Your task to perform on an android device: turn off location Image 0: 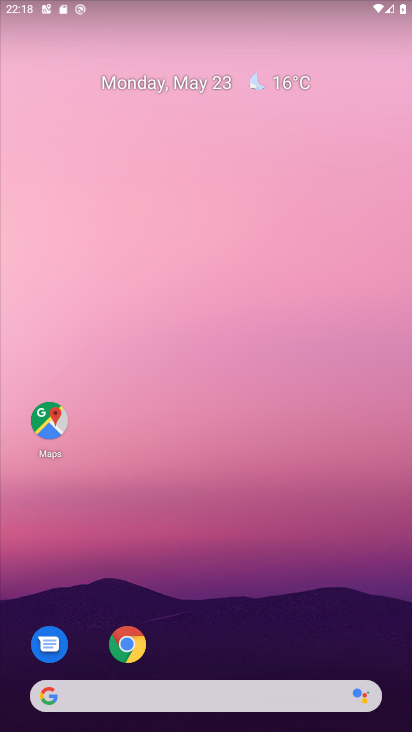
Step 0: drag from (217, 493) to (245, 125)
Your task to perform on an android device: turn off location Image 1: 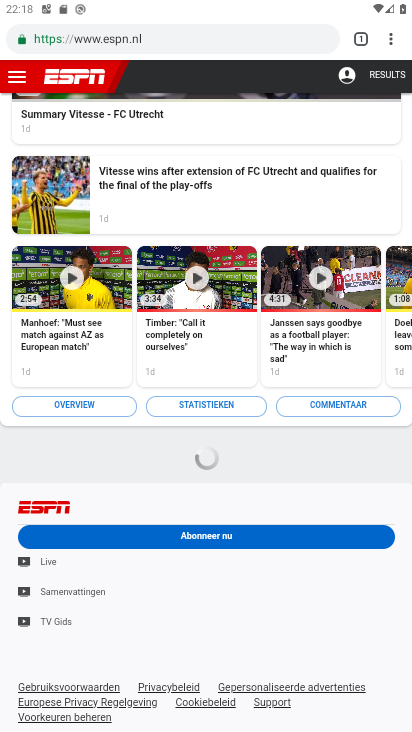
Step 1: press home button
Your task to perform on an android device: turn off location Image 2: 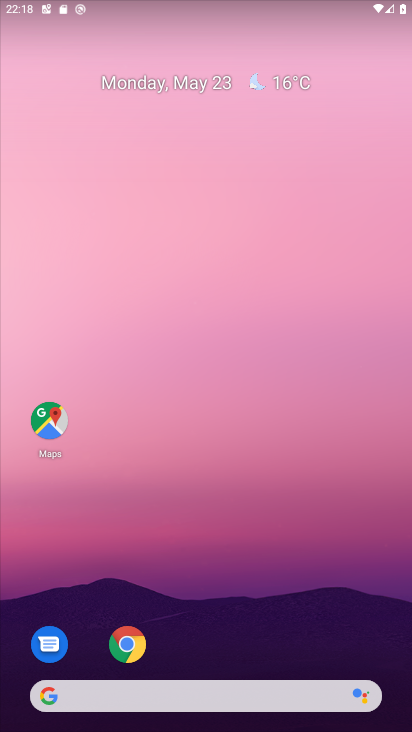
Step 2: drag from (210, 659) to (240, 40)
Your task to perform on an android device: turn off location Image 3: 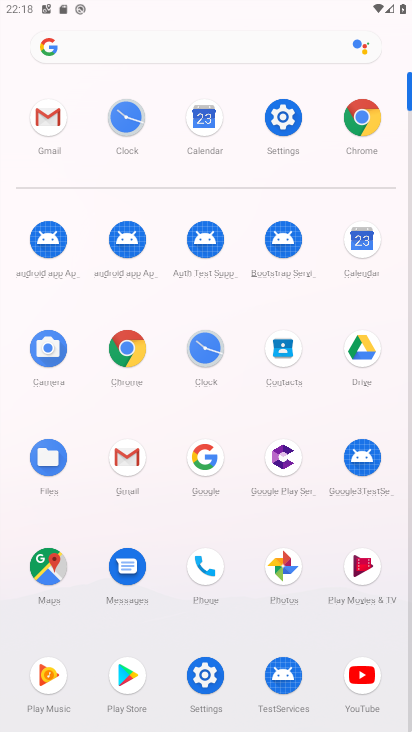
Step 3: click (281, 111)
Your task to perform on an android device: turn off location Image 4: 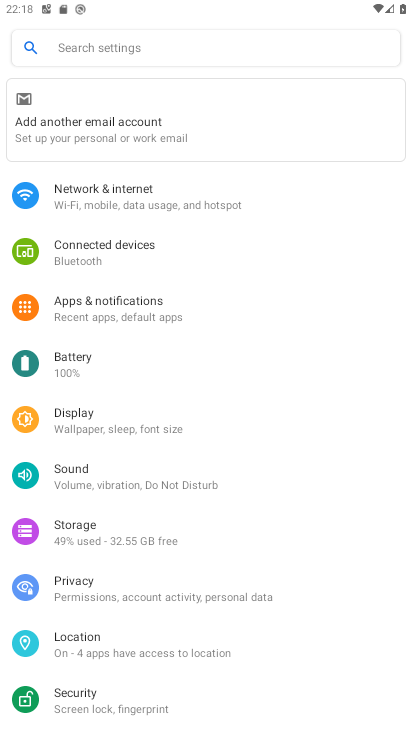
Step 4: click (106, 640)
Your task to perform on an android device: turn off location Image 5: 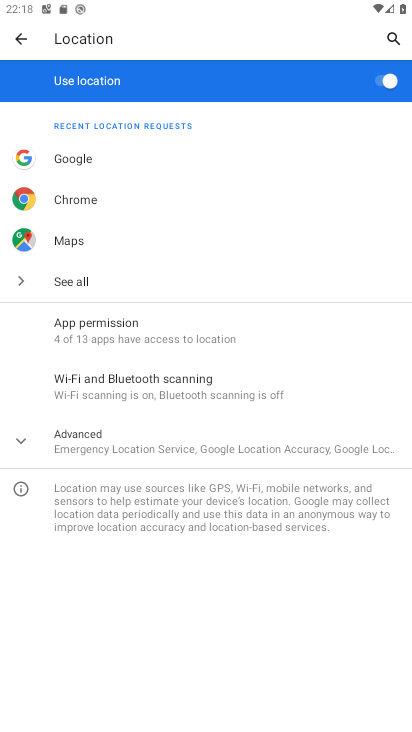
Step 5: click (383, 77)
Your task to perform on an android device: turn off location Image 6: 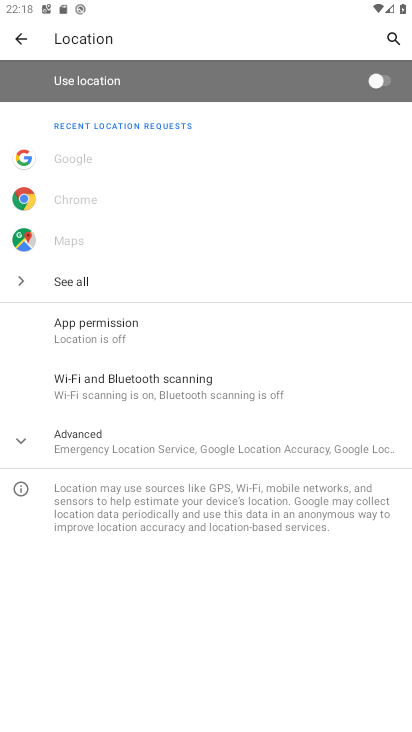
Step 6: task complete